Your task to perform on an android device: change the clock display to show seconds Image 0: 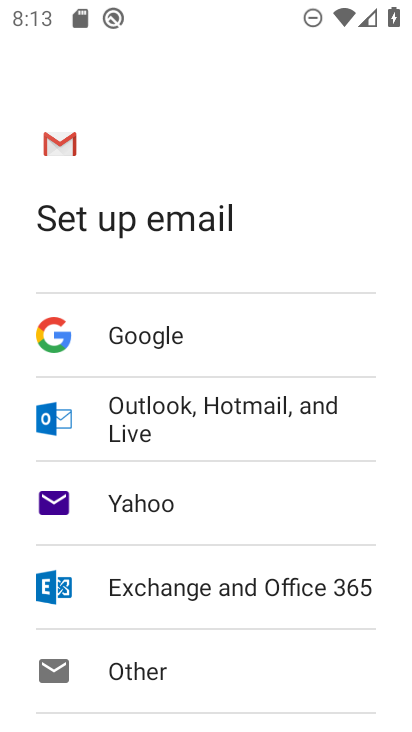
Step 0: press home button
Your task to perform on an android device: change the clock display to show seconds Image 1: 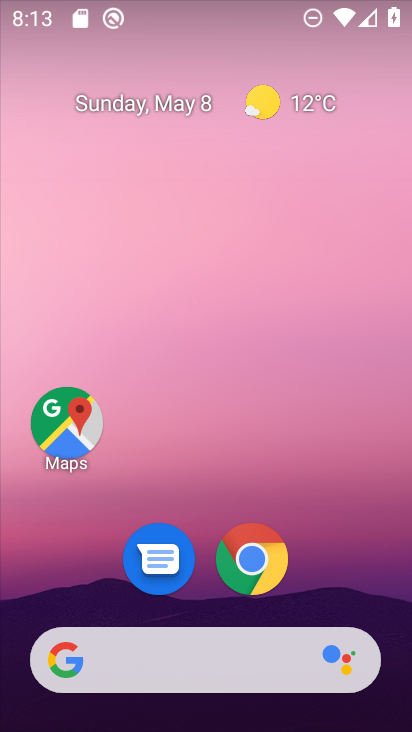
Step 1: drag from (364, 619) to (379, 8)
Your task to perform on an android device: change the clock display to show seconds Image 2: 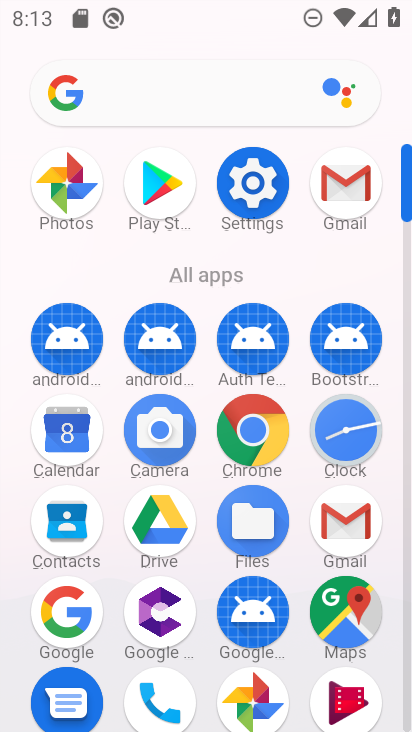
Step 2: click (349, 436)
Your task to perform on an android device: change the clock display to show seconds Image 3: 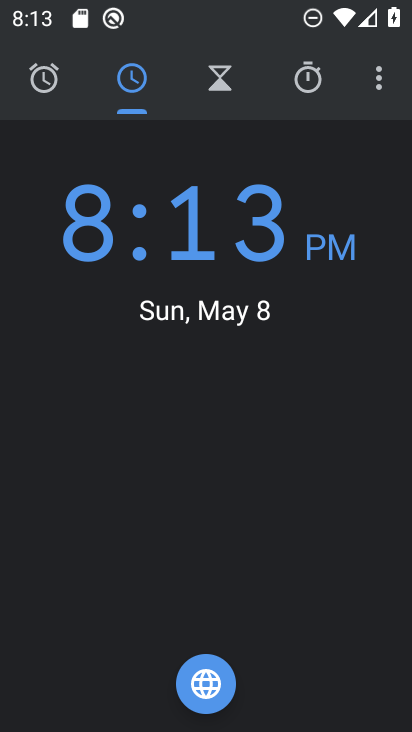
Step 3: click (374, 78)
Your task to perform on an android device: change the clock display to show seconds Image 4: 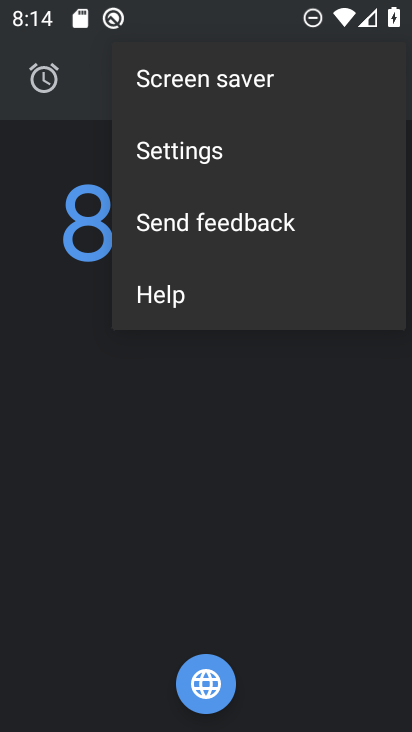
Step 4: click (199, 158)
Your task to perform on an android device: change the clock display to show seconds Image 5: 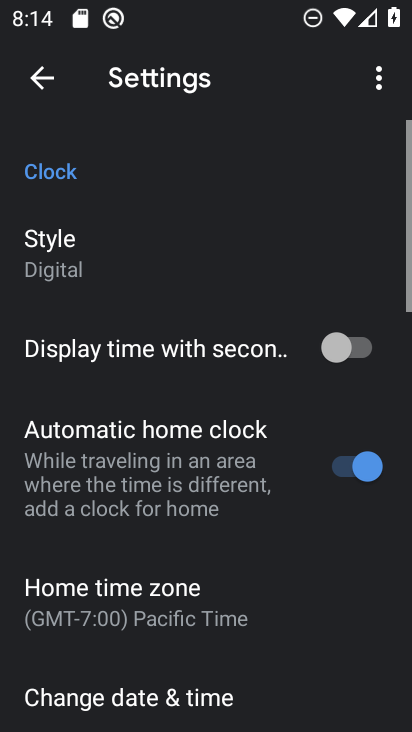
Step 5: click (331, 357)
Your task to perform on an android device: change the clock display to show seconds Image 6: 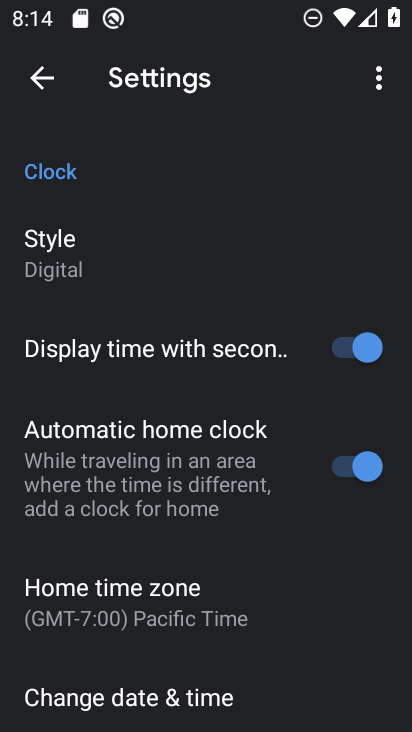
Step 6: task complete